Your task to perform on an android device: read, delete, or share a saved page in the chrome app Image 0: 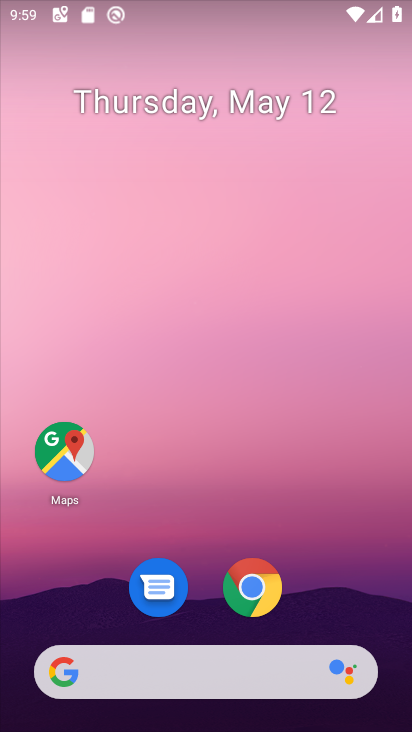
Step 0: drag from (390, 611) to (296, 89)
Your task to perform on an android device: read, delete, or share a saved page in the chrome app Image 1: 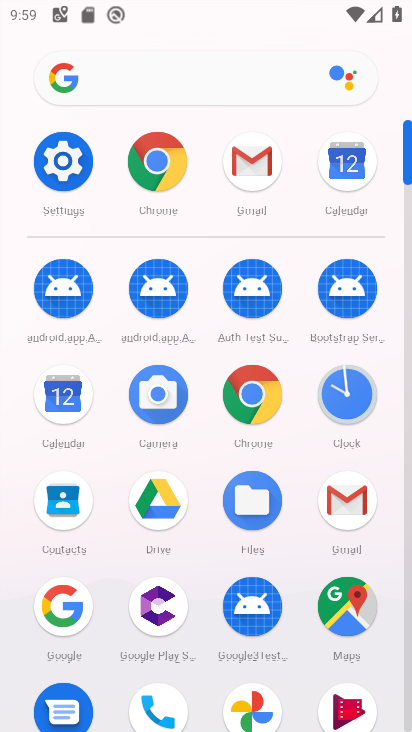
Step 1: click (259, 419)
Your task to perform on an android device: read, delete, or share a saved page in the chrome app Image 2: 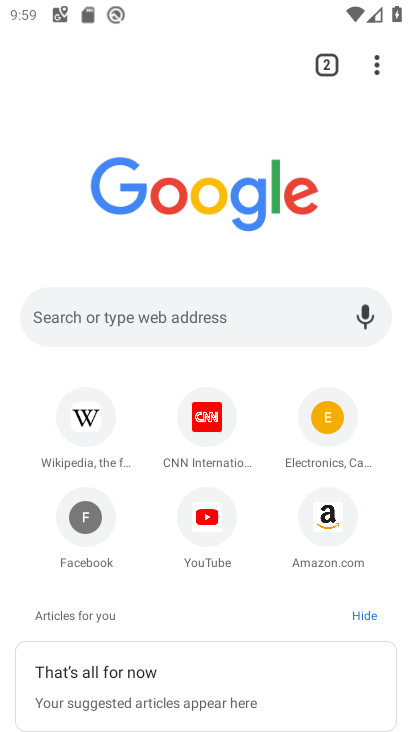
Step 2: task complete